Your task to perform on an android device: What is the capital of Spain? Image 0: 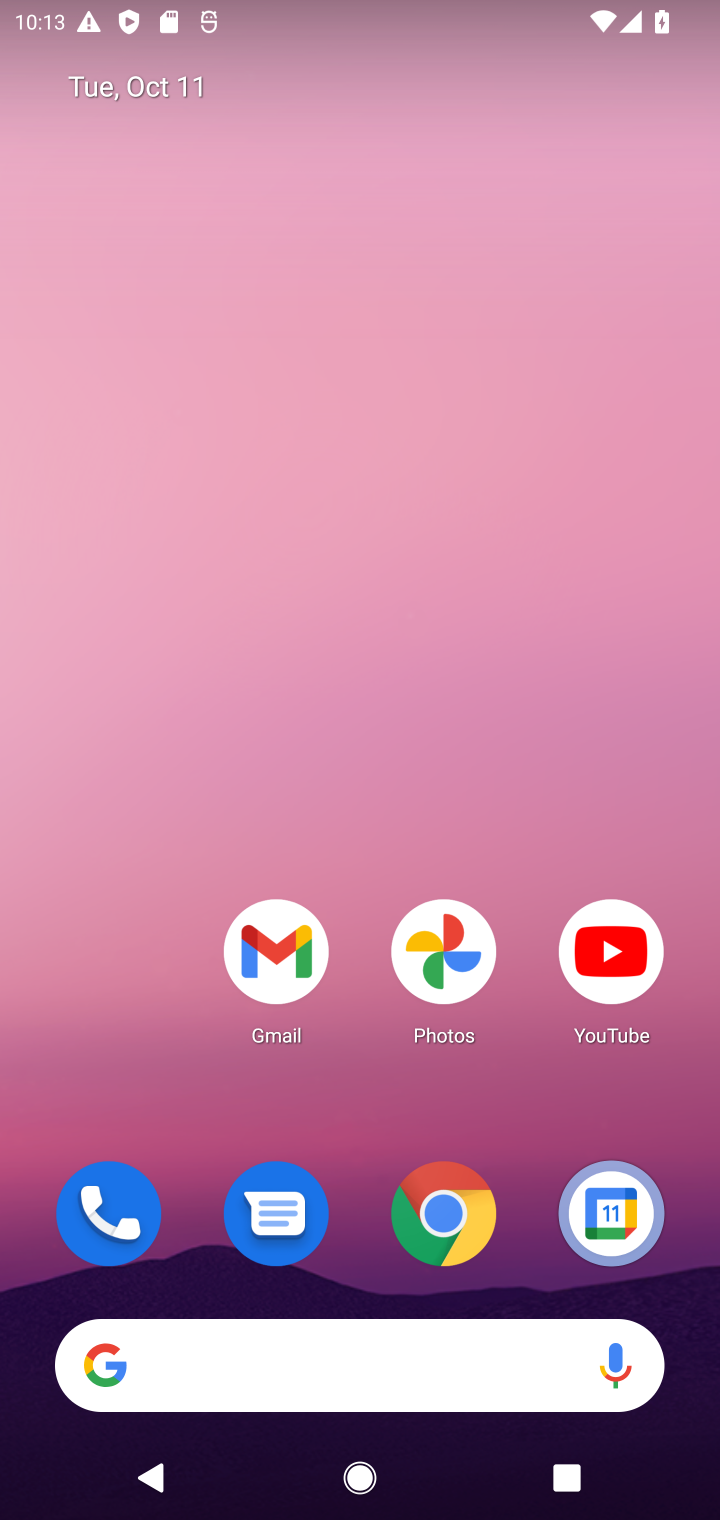
Step 0: click (466, 1223)
Your task to perform on an android device: What is the capital of Spain? Image 1: 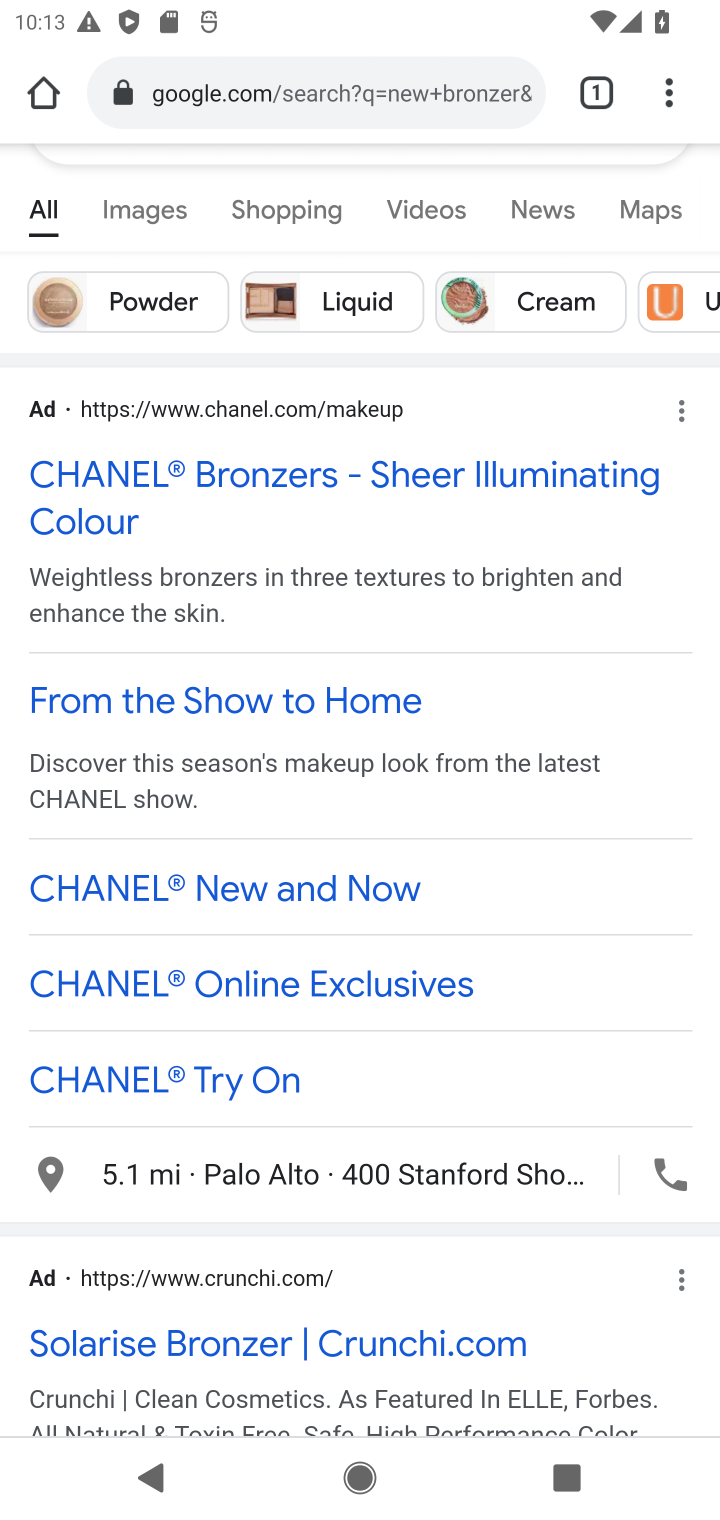
Step 1: click (279, 105)
Your task to perform on an android device: What is the capital of Spain? Image 2: 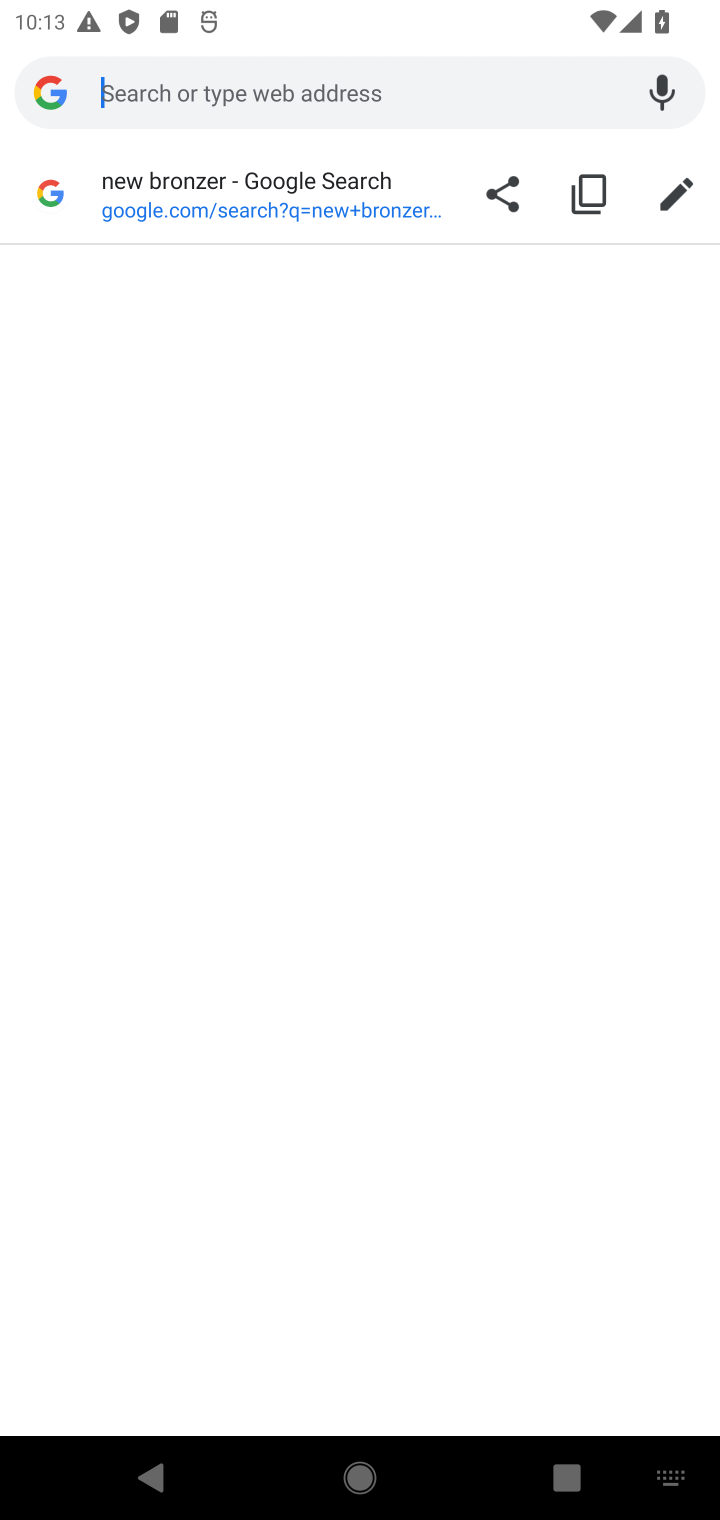
Step 2: type "capital of Spain"
Your task to perform on an android device: What is the capital of Spain? Image 3: 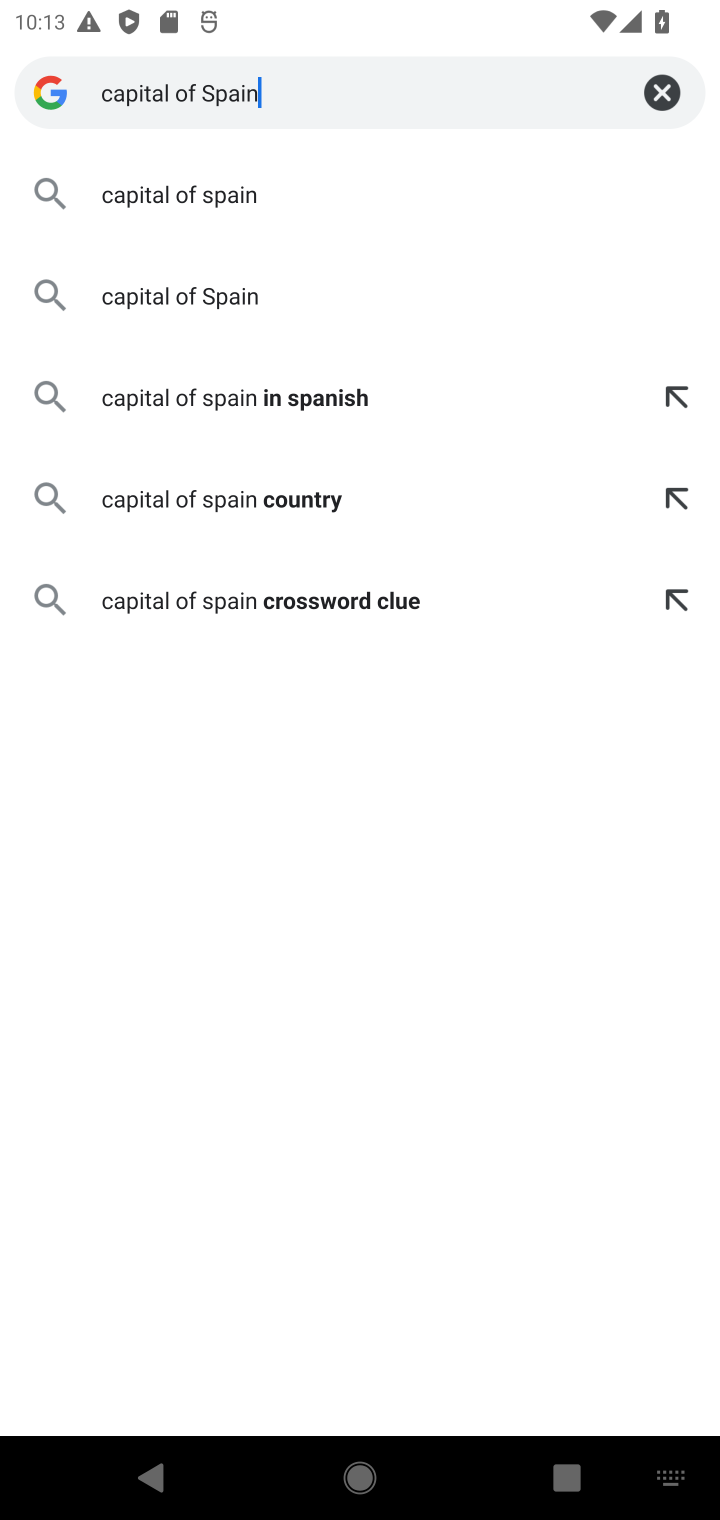
Step 3: click (291, 188)
Your task to perform on an android device: What is the capital of Spain? Image 4: 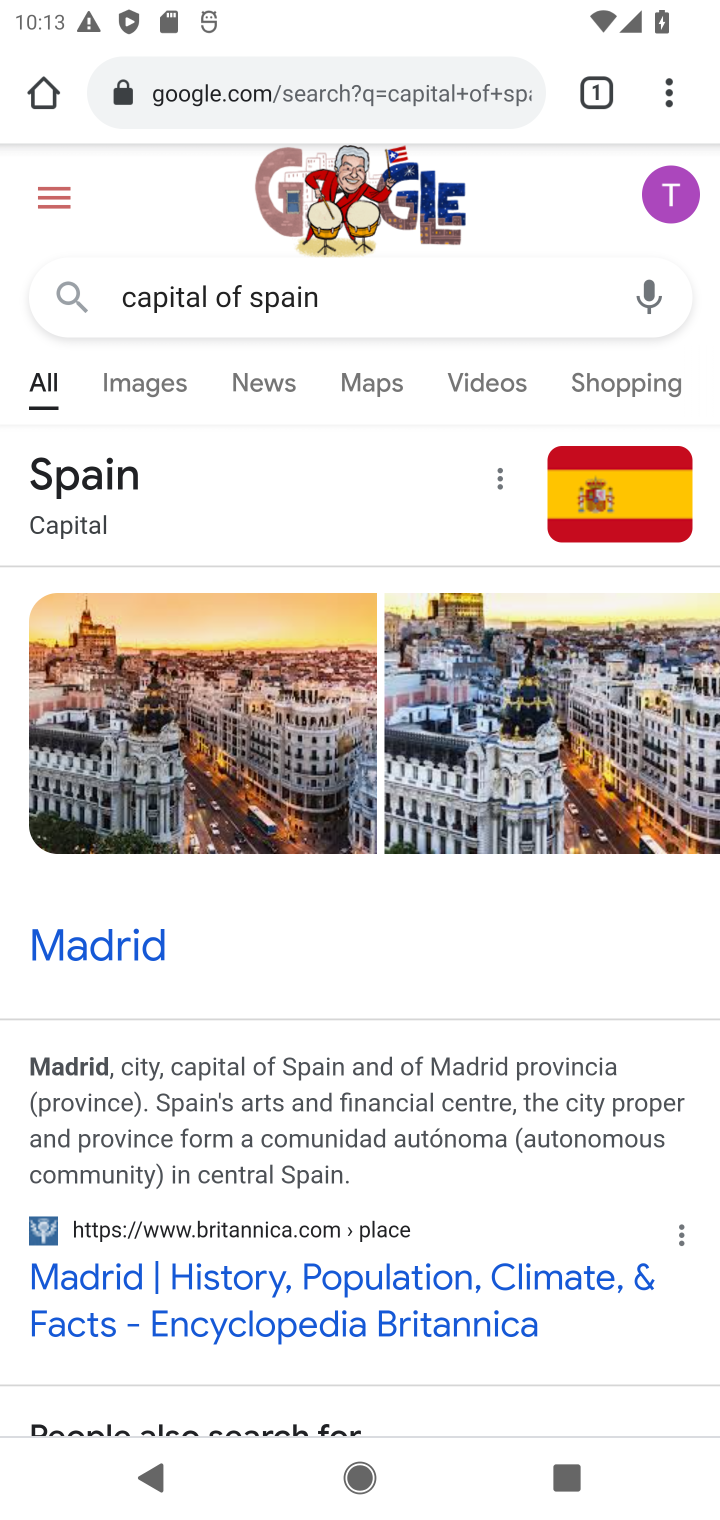
Step 4: task complete